Your task to perform on an android device: See recent photos Image 0: 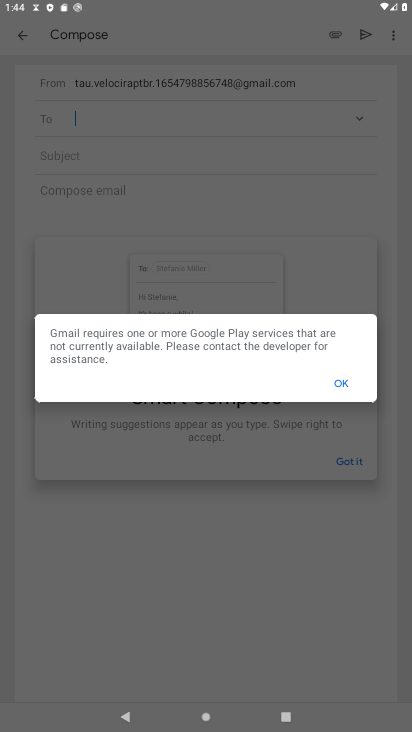
Step 0: press home button
Your task to perform on an android device: See recent photos Image 1: 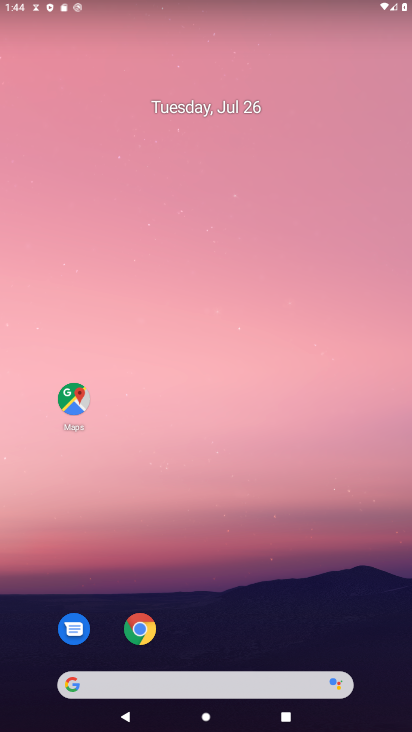
Step 1: drag from (248, 690) to (352, 68)
Your task to perform on an android device: See recent photos Image 2: 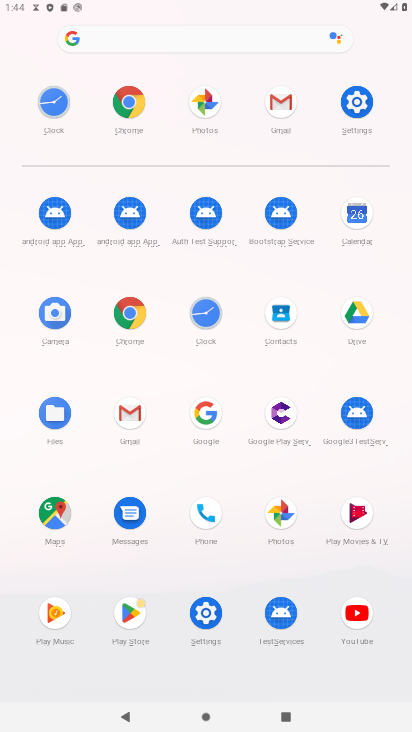
Step 2: click (281, 517)
Your task to perform on an android device: See recent photos Image 3: 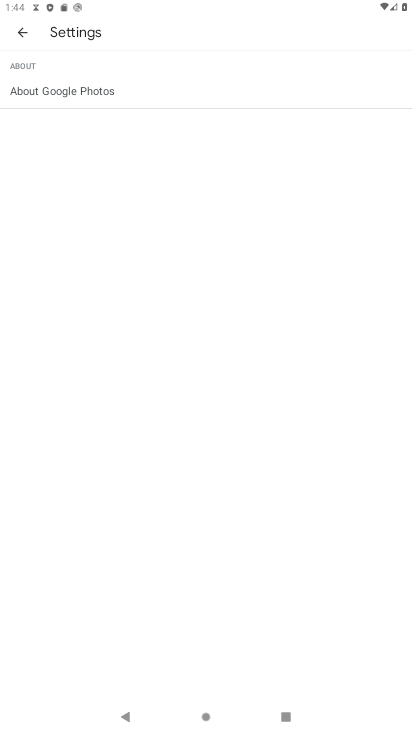
Step 3: task complete